Your task to perform on an android device: set default search engine in the chrome app Image 0: 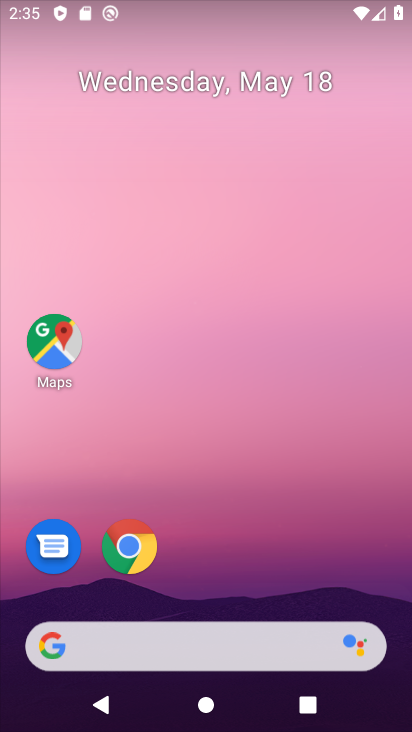
Step 0: drag from (309, 611) to (216, 253)
Your task to perform on an android device: set default search engine in the chrome app Image 1: 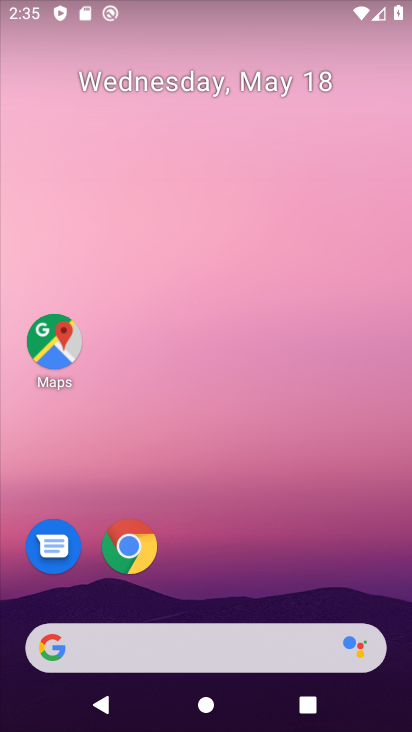
Step 1: drag from (287, 610) to (254, 170)
Your task to perform on an android device: set default search engine in the chrome app Image 2: 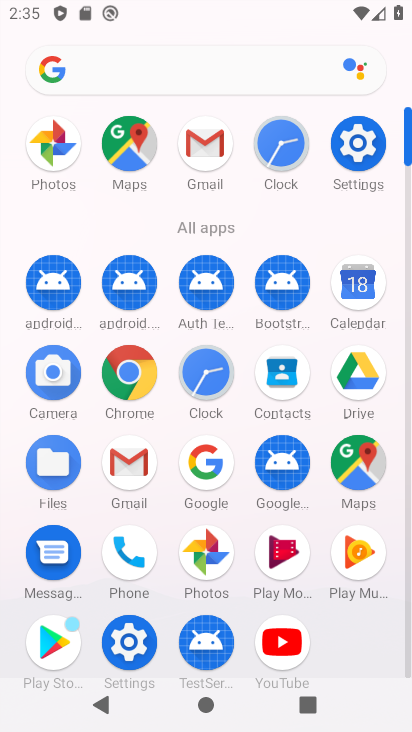
Step 2: click (122, 378)
Your task to perform on an android device: set default search engine in the chrome app Image 3: 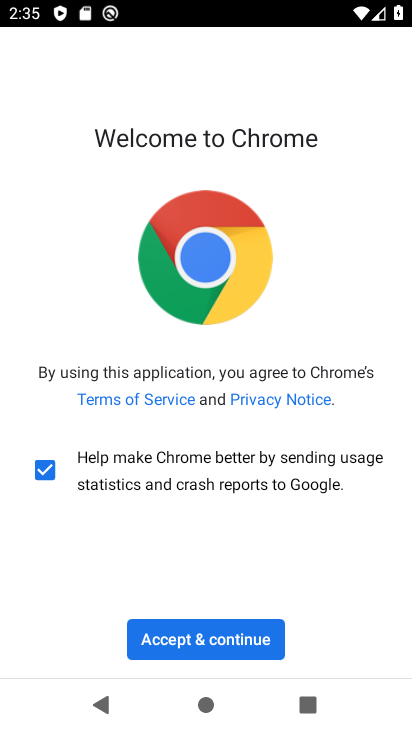
Step 3: click (202, 645)
Your task to perform on an android device: set default search engine in the chrome app Image 4: 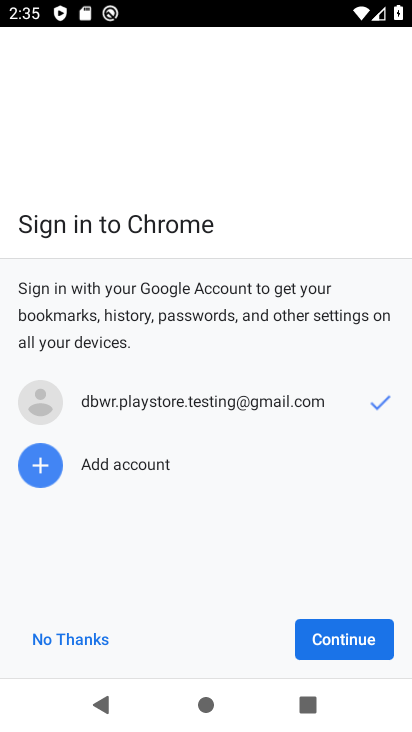
Step 4: click (364, 633)
Your task to perform on an android device: set default search engine in the chrome app Image 5: 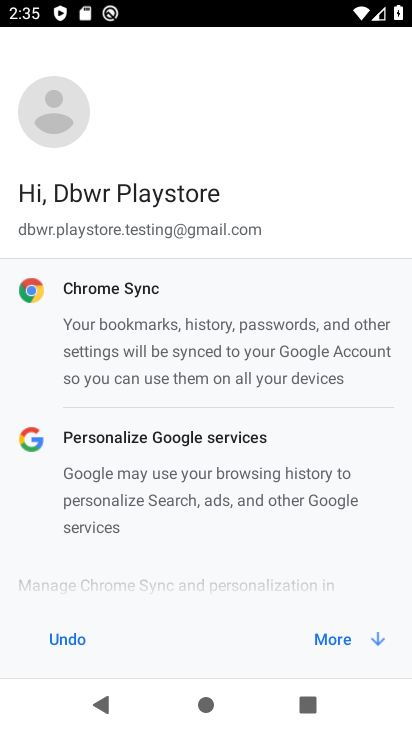
Step 5: click (334, 642)
Your task to perform on an android device: set default search engine in the chrome app Image 6: 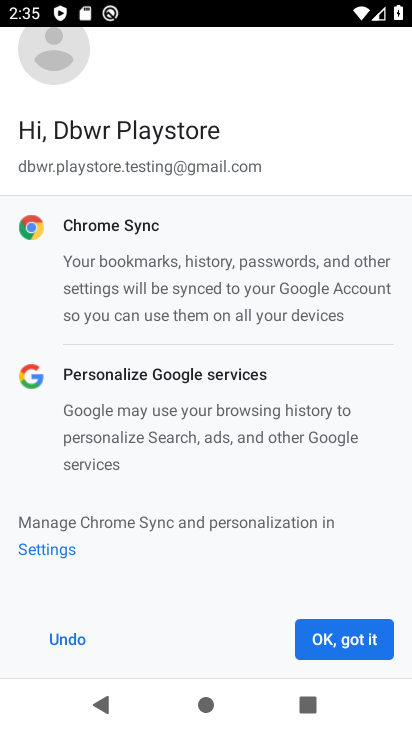
Step 6: click (348, 638)
Your task to perform on an android device: set default search engine in the chrome app Image 7: 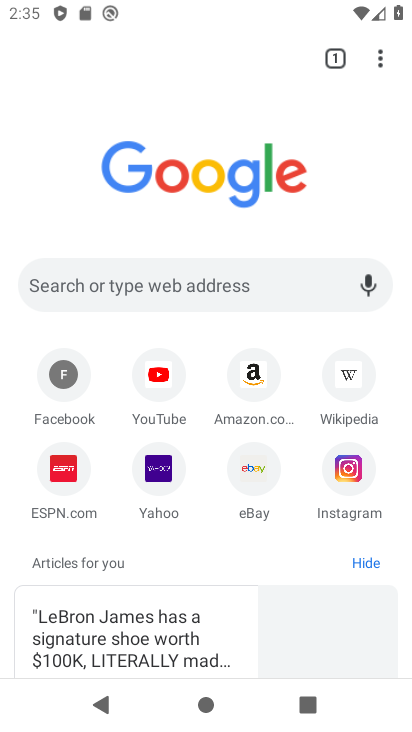
Step 7: click (375, 58)
Your task to perform on an android device: set default search engine in the chrome app Image 8: 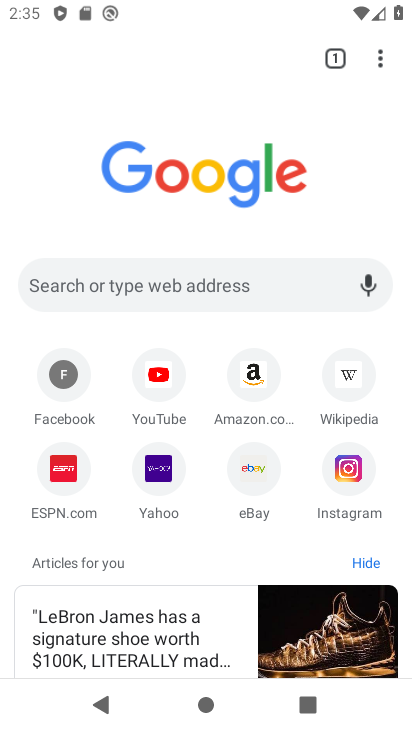
Step 8: drag from (373, 54) to (158, 492)
Your task to perform on an android device: set default search engine in the chrome app Image 9: 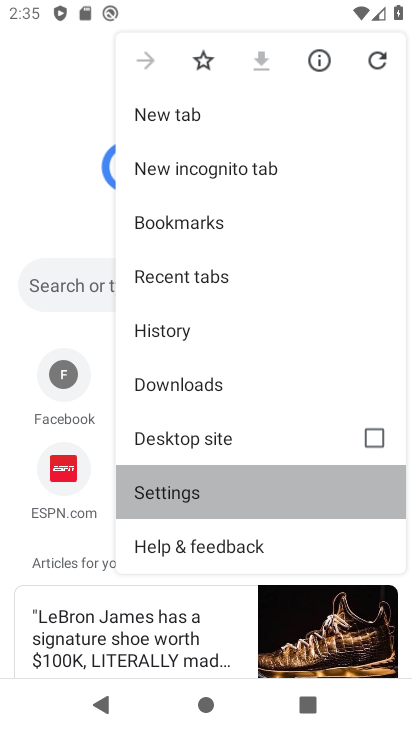
Step 9: click (161, 489)
Your task to perform on an android device: set default search engine in the chrome app Image 10: 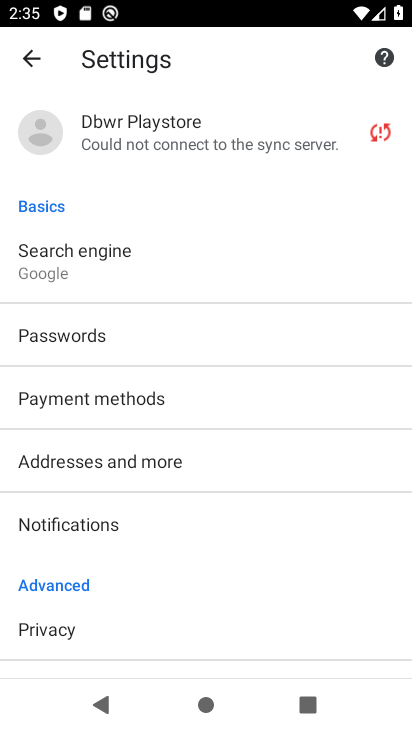
Step 10: click (52, 252)
Your task to perform on an android device: set default search engine in the chrome app Image 11: 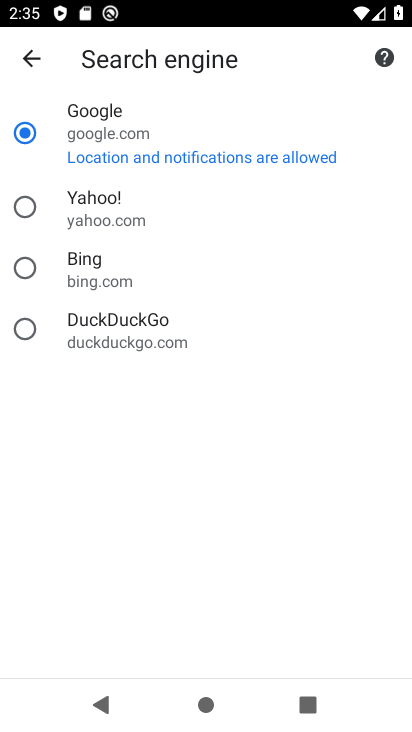
Step 11: click (21, 208)
Your task to perform on an android device: set default search engine in the chrome app Image 12: 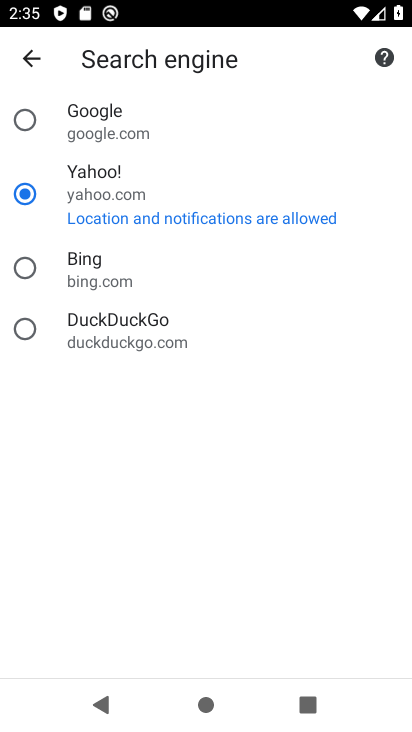
Step 12: task complete